Your task to perform on an android device: turn off smart reply in the gmail app Image 0: 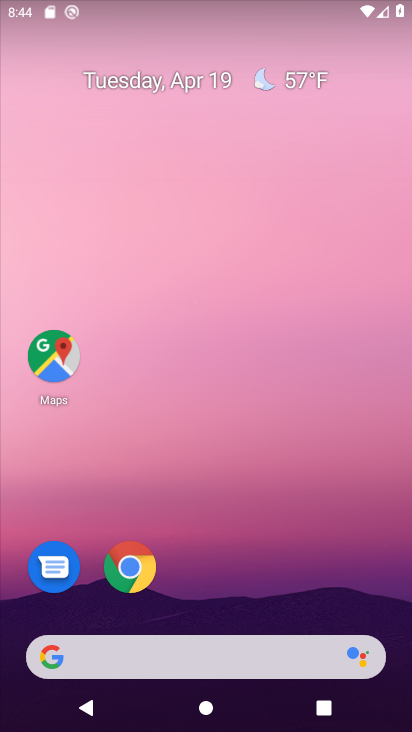
Step 0: drag from (378, 579) to (408, 433)
Your task to perform on an android device: turn off smart reply in the gmail app Image 1: 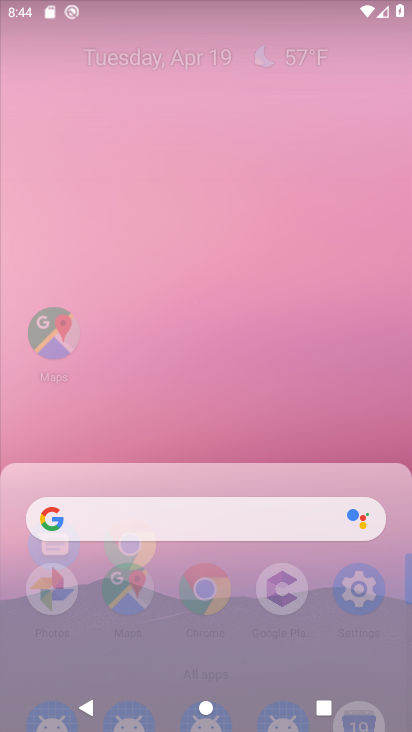
Step 1: drag from (342, 516) to (345, 98)
Your task to perform on an android device: turn off smart reply in the gmail app Image 2: 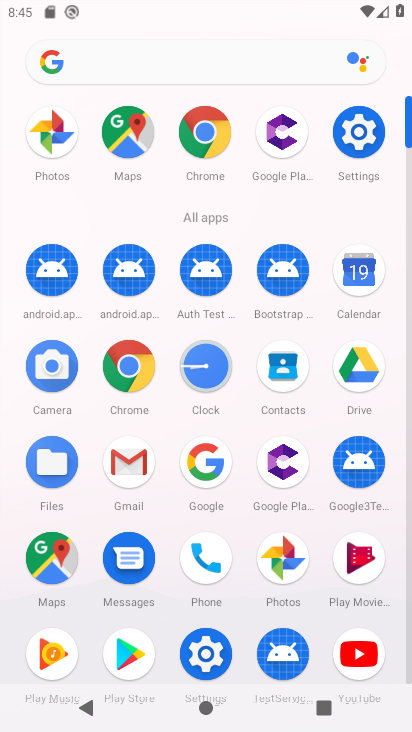
Step 2: click (130, 462)
Your task to perform on an android device: turn off smart reply in the gmail app Image 3: 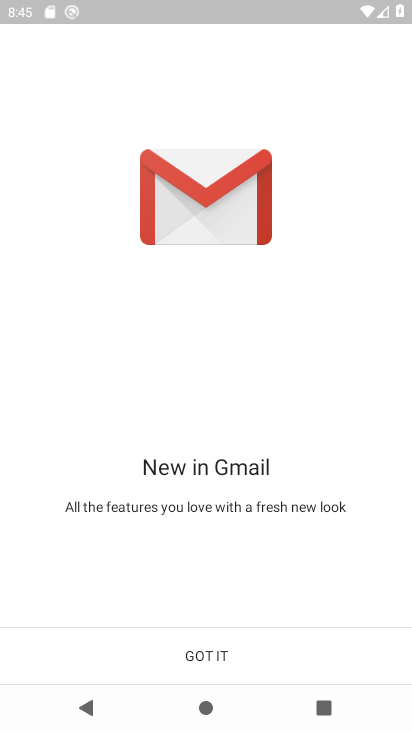
Step 3: click (208, 655)
Your task to perform on an android device: turn off smart reply in the gmail app Image 4: 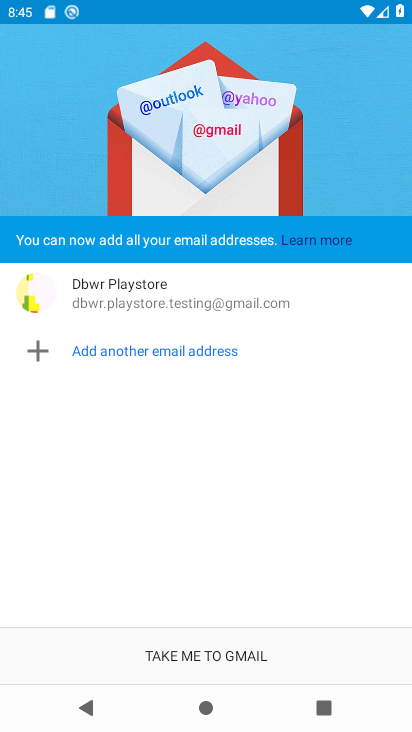
Step 4: click (208, 655)
Your task to perform on an android device: turn off smart reply in the gmail app Image 5: 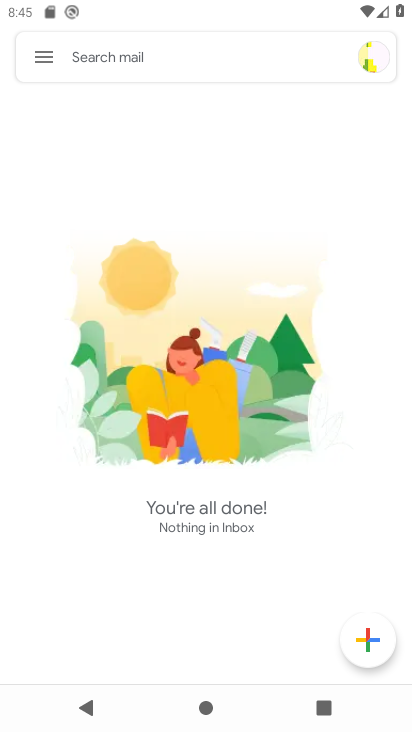
Step 5: click (46, 66)
Your task to perform on an android device: turn off smart reply in the gmail app Image 6: 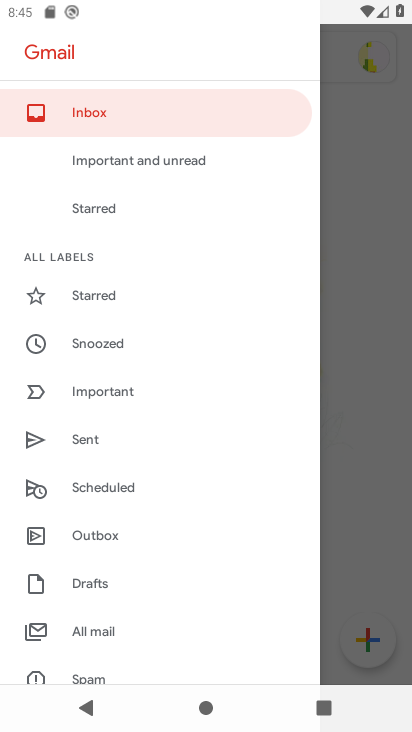
Step 6: drag from (220, 620) to (311, 171)
Your task to perform on an android device: turn off smart reply in the gmail app Image 7: 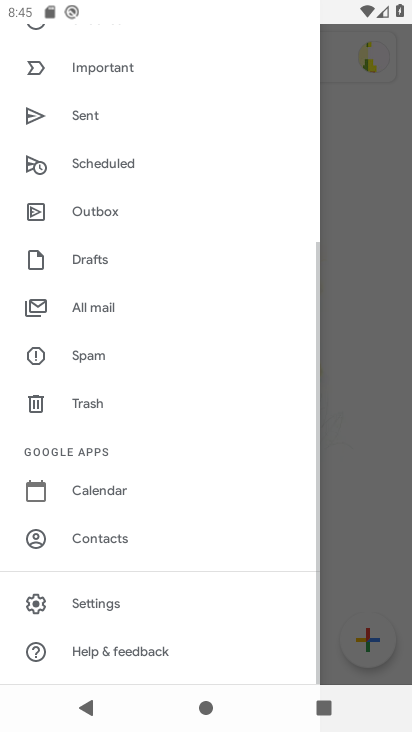
Step 7: click (105, 603)
Your task to perform on an android device: turn off smart reply in the gmail app Image 8: 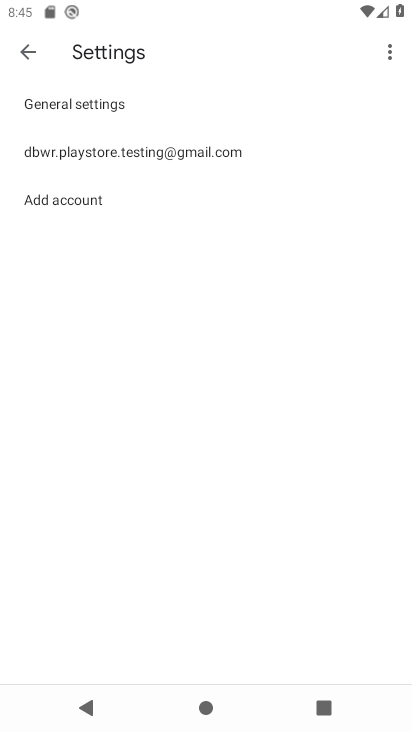
Step 8: click (113, 157)
Your task to perform on an android device: turn off smart reply in the gmail app Image 9: 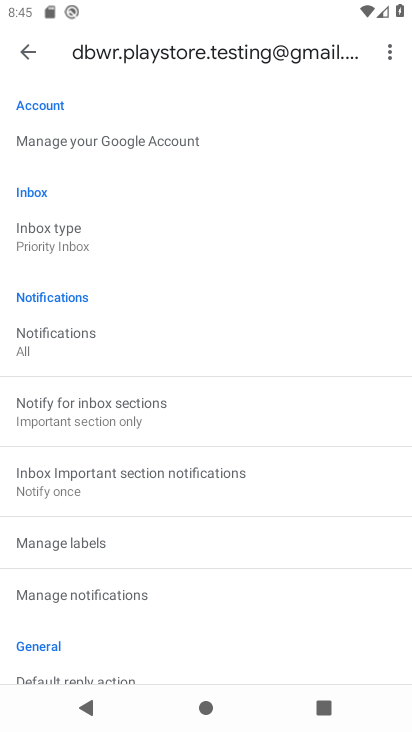
Step 9: drag from (265, 470) to (298, 178)
Your task to perform on an android device: turn off smart reply in the gmail app Image 10: 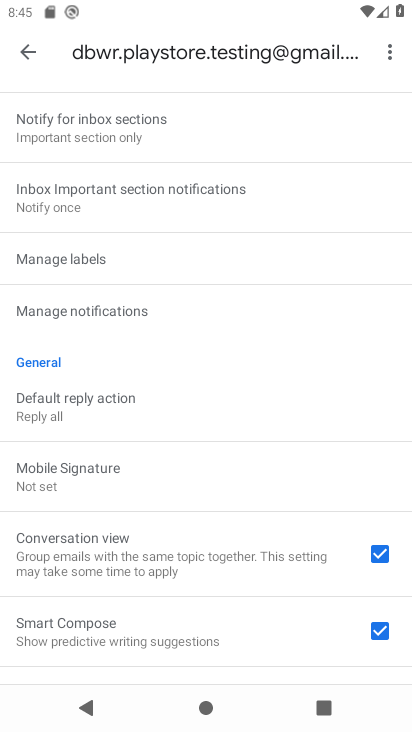
Step 10: drag from (180, 605) to (245, 312)
Your task to perform on an android device: turn off smart reply in the gmail app Image 11: 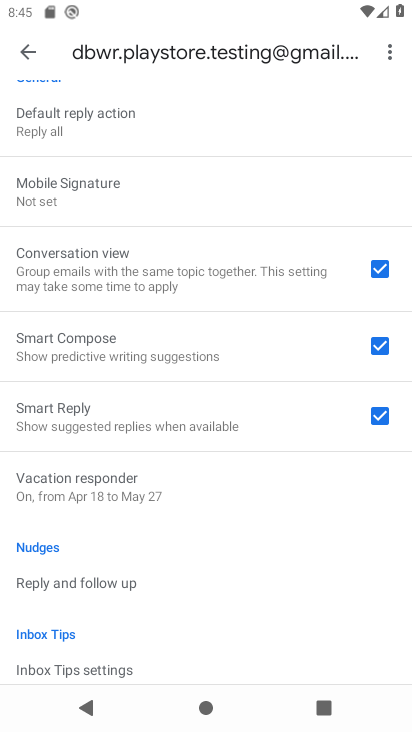
Step 11: click (387, 412)
Your task to perform on an android device: turn off smart reply in the gmail app Image 12: 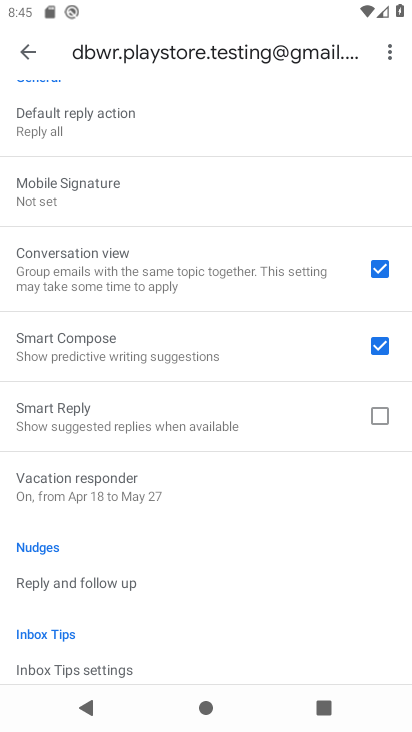
Step 12: task complete